Your task to perform on an android device: remove spam from my inbox in the gmail app Image 0: 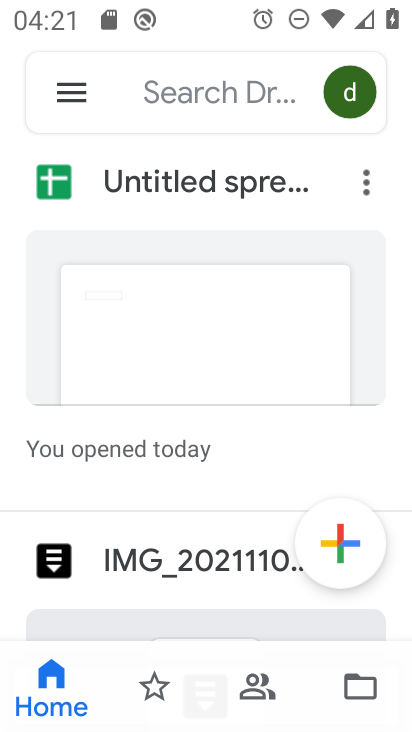
Step 0: press home button
Your task to perform on an android device: remove spam from my inbox in the gmail app Image 1: 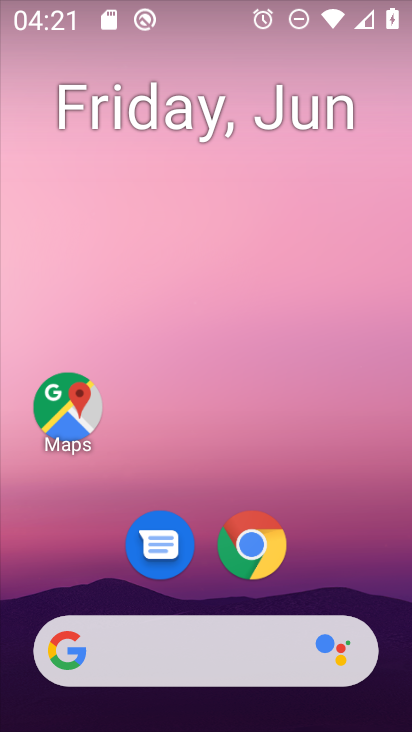
Step 1: click (346, 34)
Your task to perform on an android device: remove spam from my inbox in the gmail app Image 2: 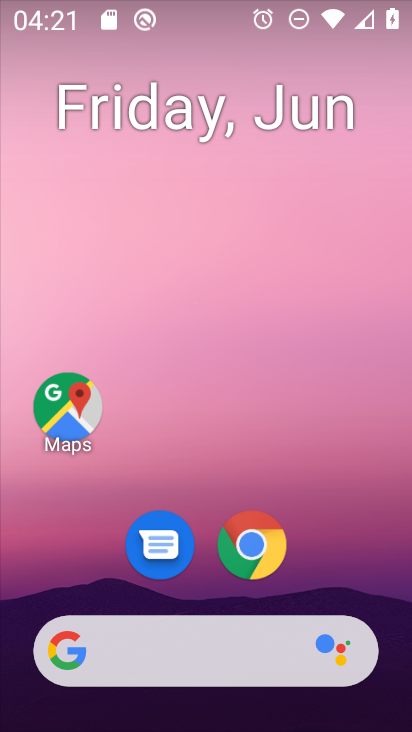
Step 2: drag from (331, 595) to (342, 52)
Your task to perform on an android device: remove spam from my inbox in the gmail app Image 3: 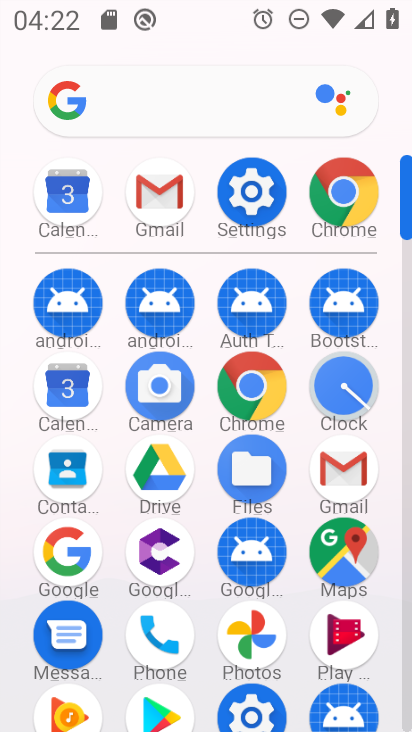
Step 3: click (140, 201)
Your task to perform on an android device: remove spam from my inbox in the gmail app Image 4: 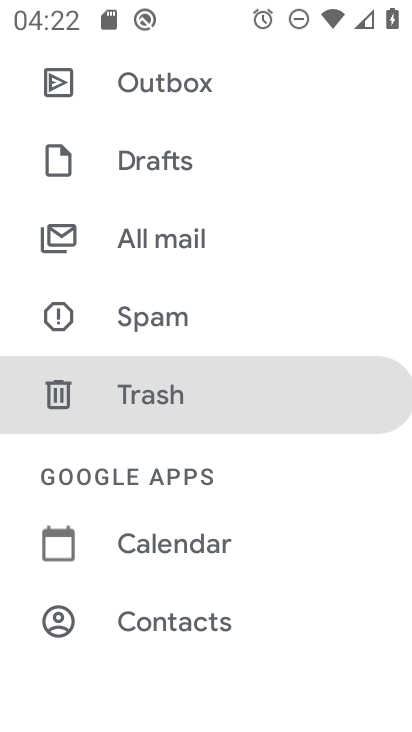
Step 4: click (152, 309)
Your task to perform on an android device: remove spam from my inbox in the gmail app Image 5: 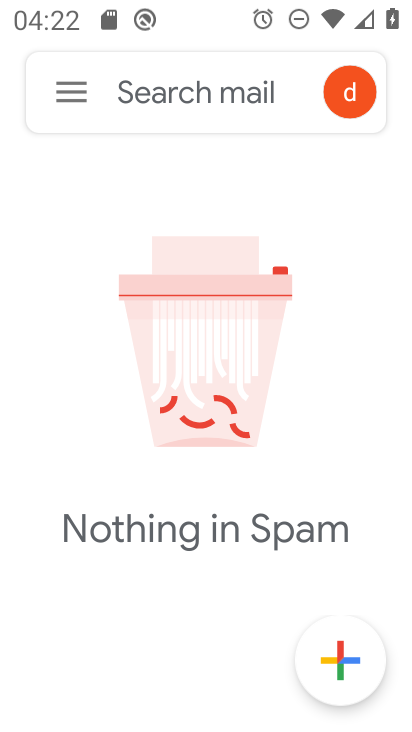
Step 5: task complete